Your task to perform on an android device: change the clock display to analog Image 0: 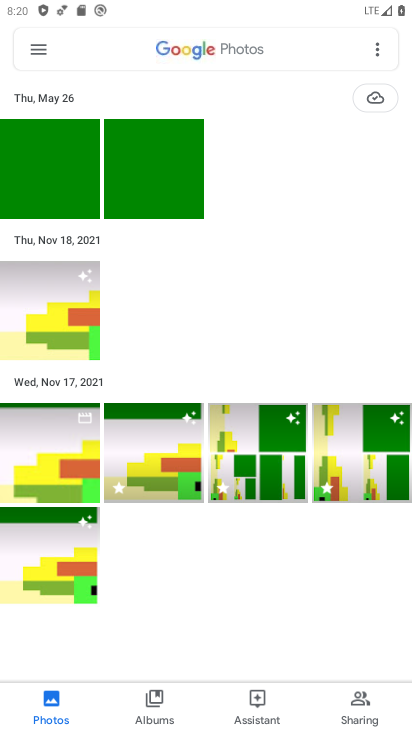
Step 0: press home button
Your task to perform on an android device: change the clock display to analog Image 1: 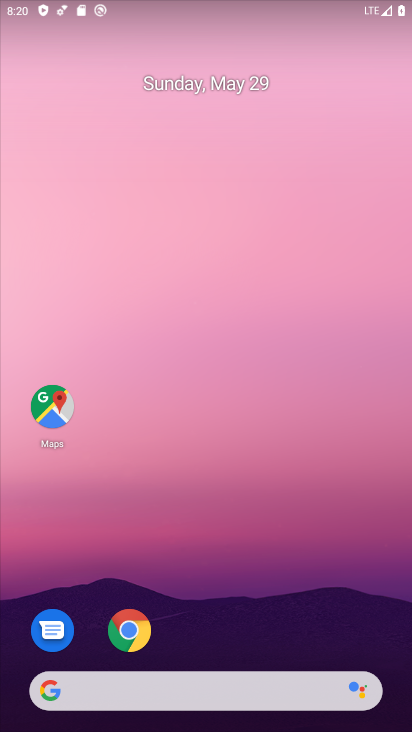
Step 1: drag from (212, 636) to (184, 137)
Your task to perform on an android device: change the clock display to analog Image 2: 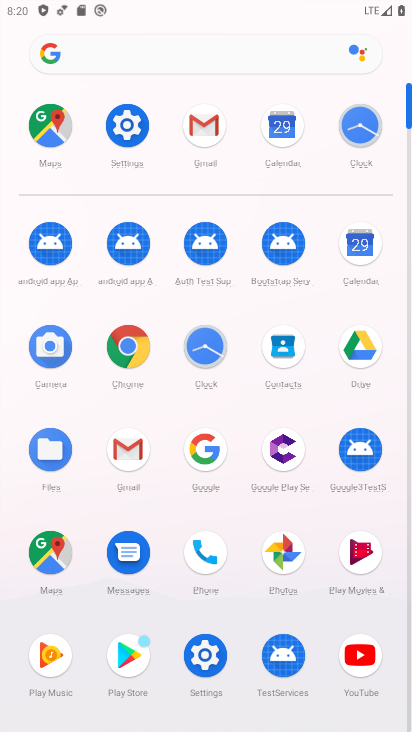
Step 2: click (206, 342)
Your task to perform on an android device: change the clock display to analog Image 3: 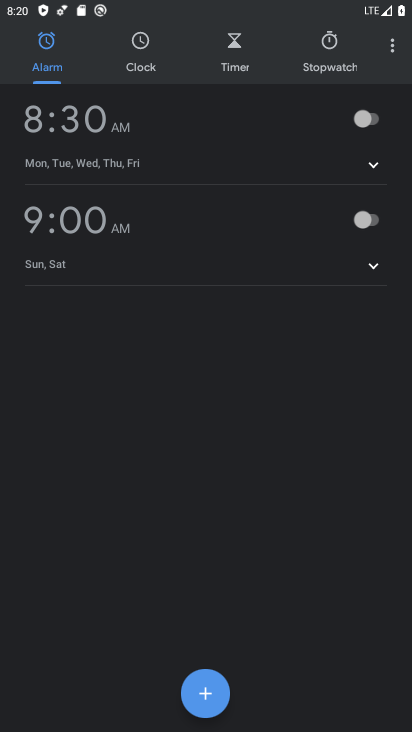
Step 3: click (392, 52)
Your task to perform on an android device: change the clock display to analog Image 4: 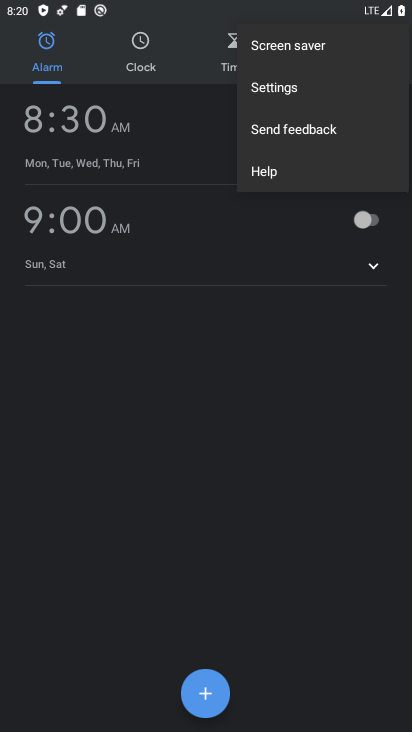
Step 4: click (290, 89)
Your task to perform on an android device: change the clock display to analog Image 5: 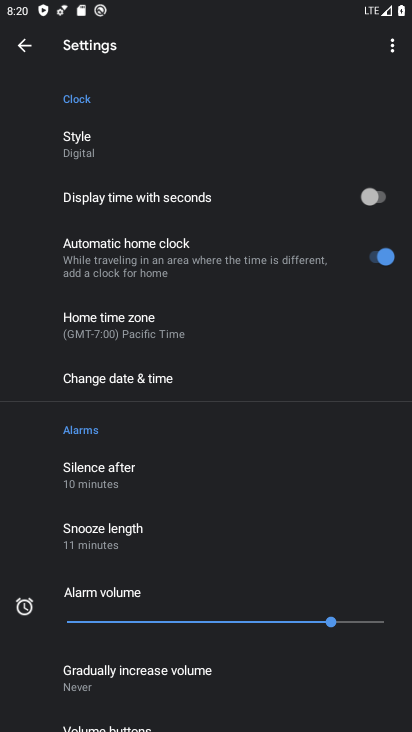
Step 5: click (95, 140)
Your task to perform on an android device: change the clock display to analog Image 6: 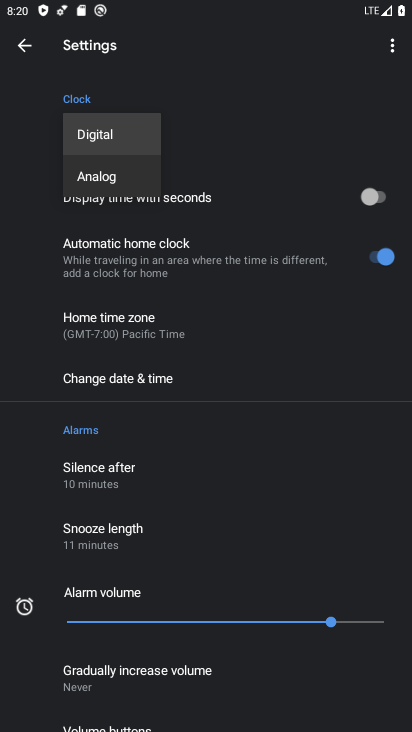
Step 6: click (105, 176)
Your task to perform on an android device: change the clock display to analog Image 7: 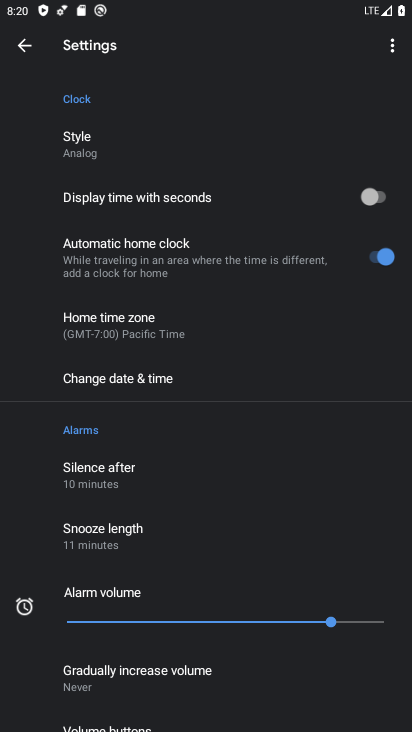
Step 7: task complete